Your task to perform on an android device: turn off priority inbox in the gmail app Image 0: 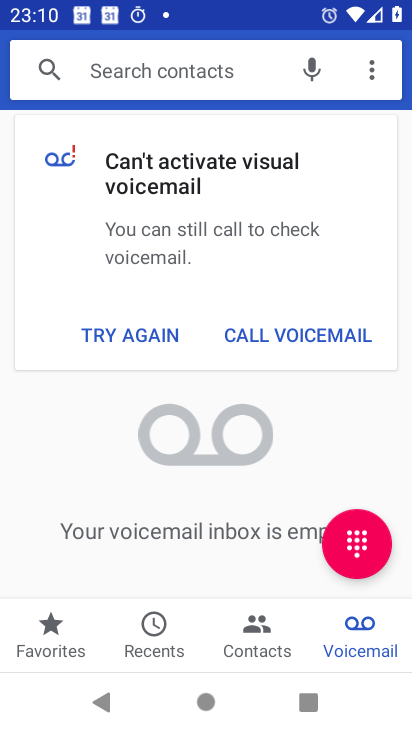
Step 0: press home button
Your task to perform on an android device: turn off priority inbox in the gmail app Image 1: 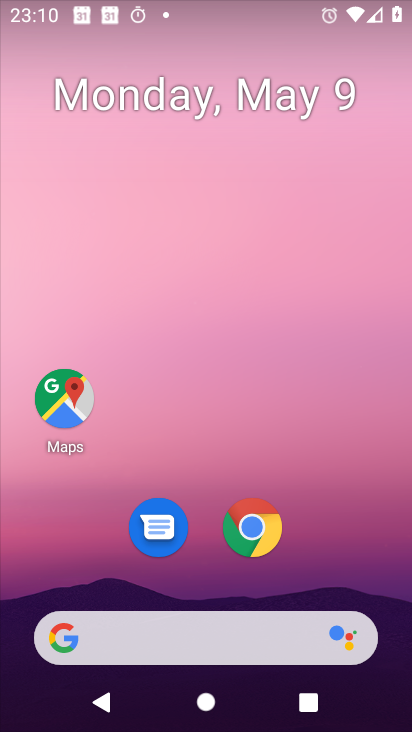
Step 1: drag from (211, 568) to (201, 120)
Your task to perform on an android device: turn off priority inbox in the gmail app Image 2: 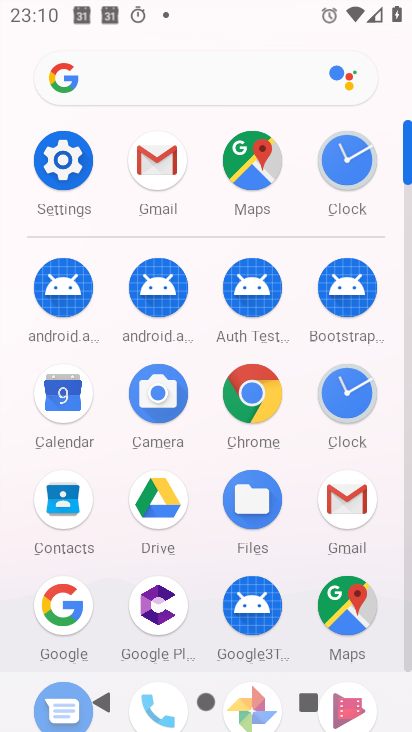
Step 2: click (151, 162)
Your task to perform on an android device: turn off priority inbox in the gmail app Image 3: 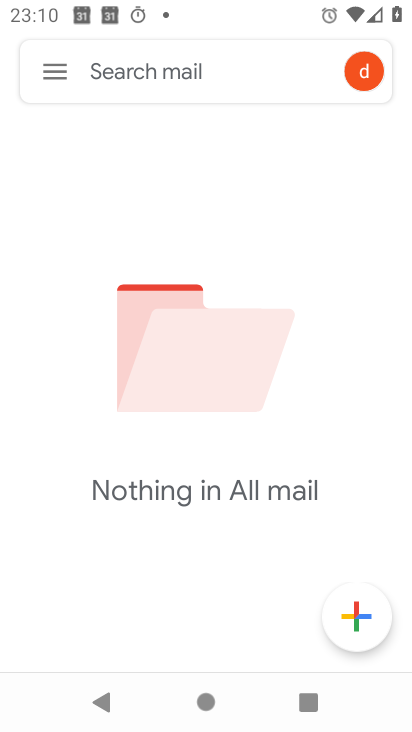
Step 3: click (59, 57)
Your task to perform on an android device: turn off priority inbox in the gmail app Image 4: 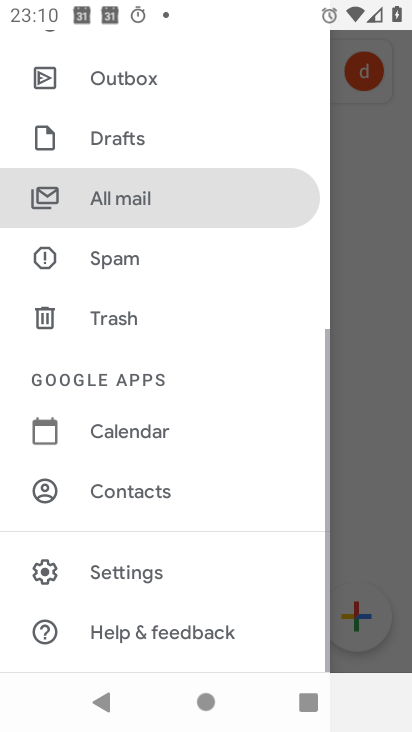
Step 4: click (151, 569)
Your task to perform on an android device: turn off priority inbox in the gmail app Image 5: 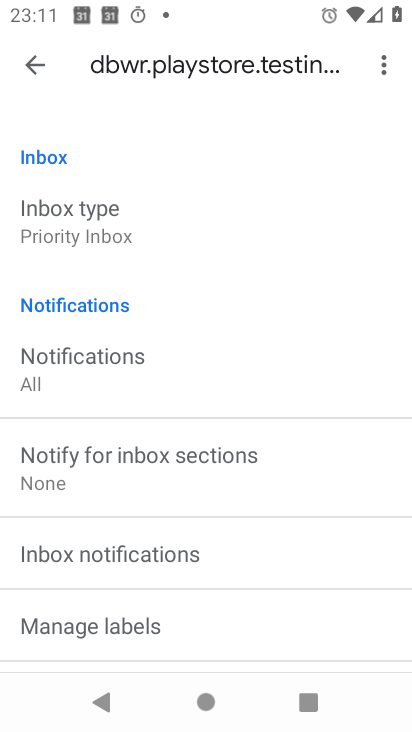
Step 5: click (106, 246)
Your task to perform on an android device: turn off priority inbox in the gmail app Image 6: 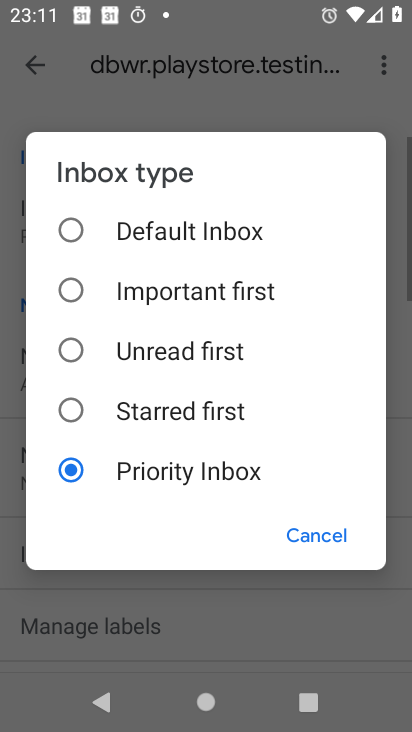
Step 6: click (67, 226)
Your task to perform on an android device: turn off priority inbox in the gmail app Image 7: 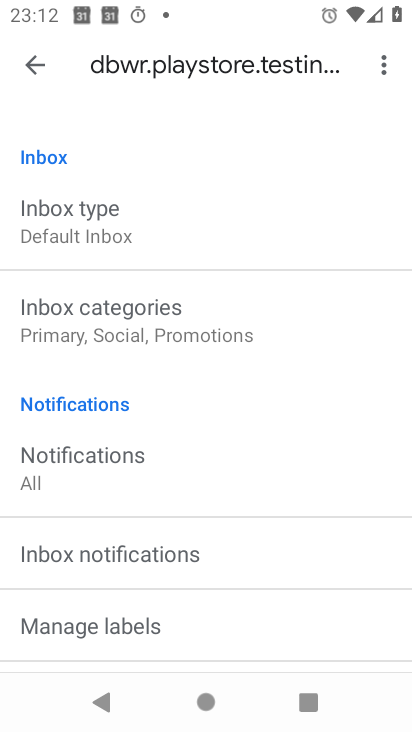
Step 7: task complete